Your task to perform on an android device: Go to privacy settings Image 0: 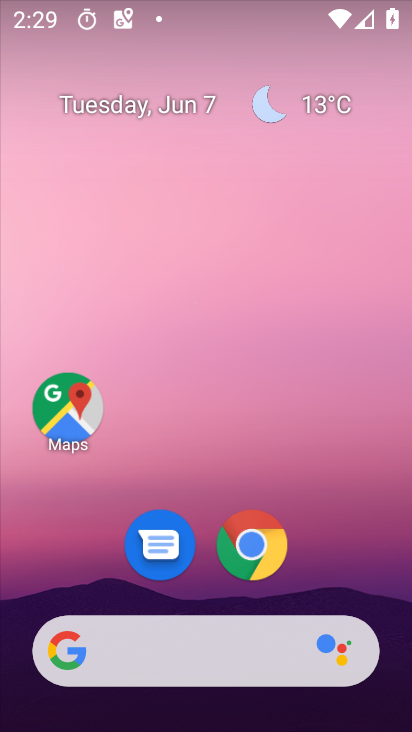
Step 0: drag from (351, 461) to (147, 3)
Your task to perform on an android device: Go to privacy settings Image 1: 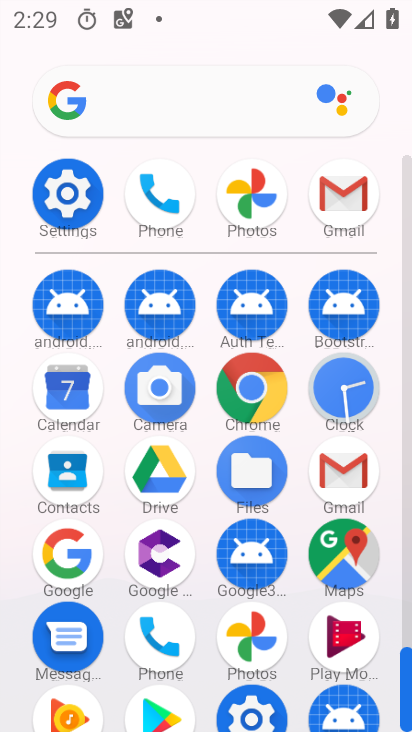
Step 1: click (56, 193)
Your task to perform on an android device: Go to privacy settings Image 2: 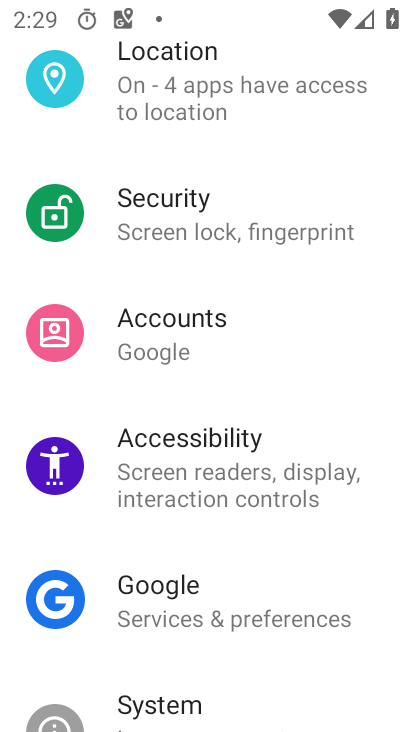
Step 2: drag from (252, 639) to (269, 231)
Your task to perform on an android device: Go to privacy settings Image 3: 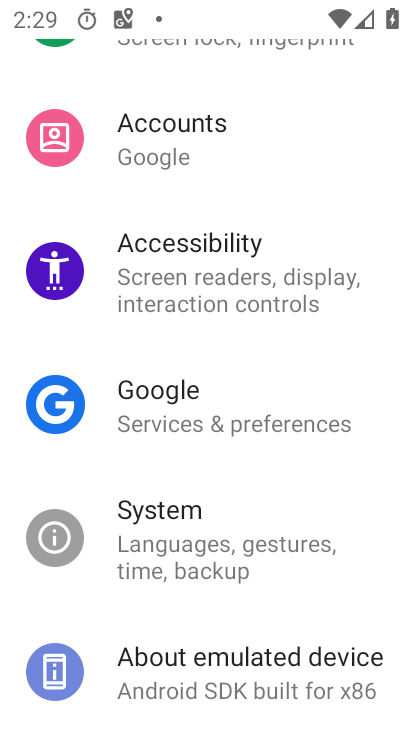
Step 3: drag from (237, 105) to (239, 688)
Your task to perform on an android device: Go to privacy settings Image 4: 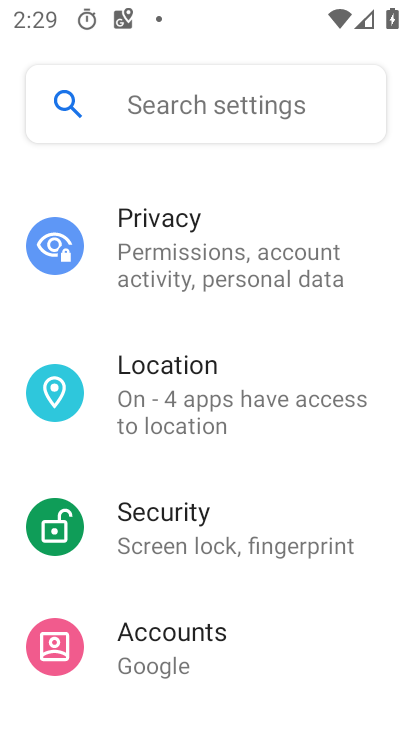
Step 4: click (217, 249)
Your task to perform on an android device: Go to privacy settings Image 5: 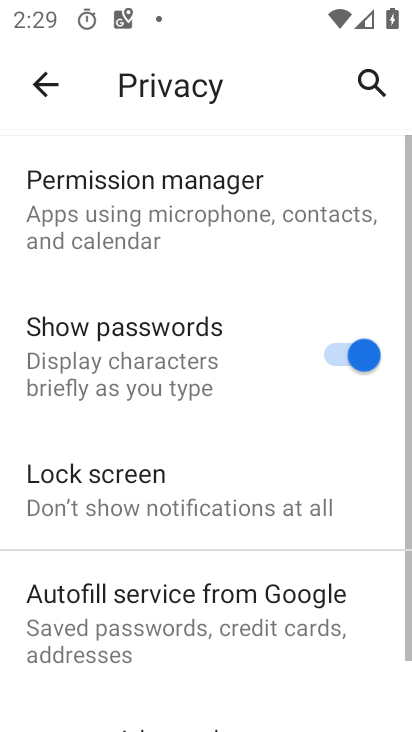
Step 5: task complete